Your task to perform on an android device: Open internet settings Image 0: 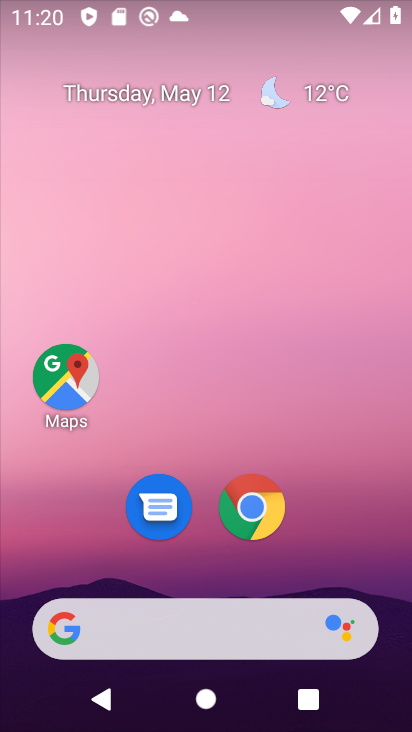
Step 0: drag from (217, 556) to (217, 8)
Your task to perform on an android device: Open internet settings Image 1: 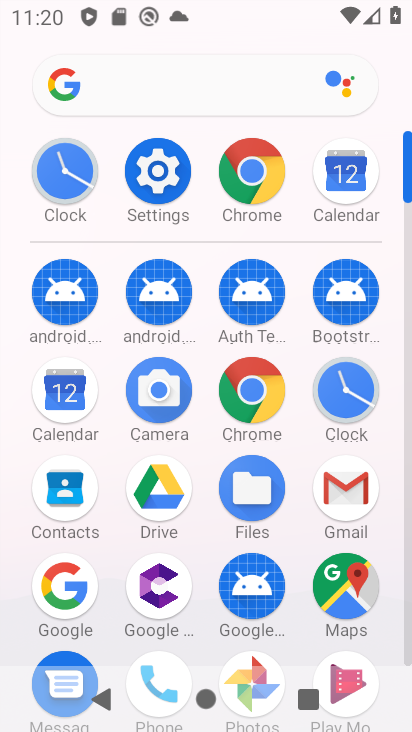
Step 1: click (162, 196)
Your task to perform on an android device: Open internet settings Image 2: 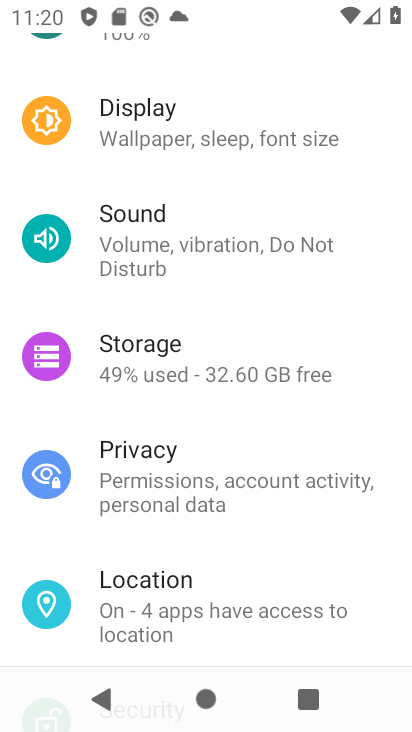
Step 2: drag from (216, 225) to (173, 709)
Your task to perform on an android device: Open internet settings Image 3: 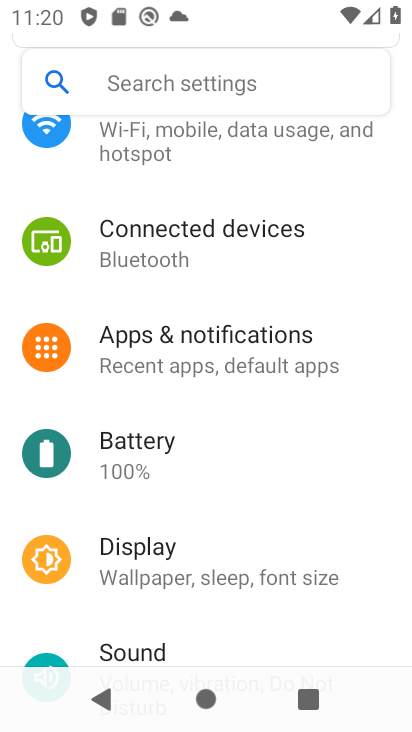
Step 3: drag from (206, 216) to (236, 730)
Your task to perform on an android device: Open internet settings Image 4: 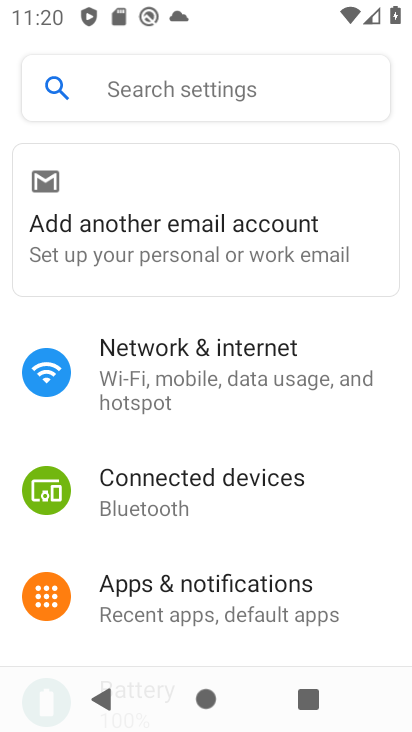
Step 4: click (214, 385)
Your task to perform on an android device: Open internet settings Image 5: 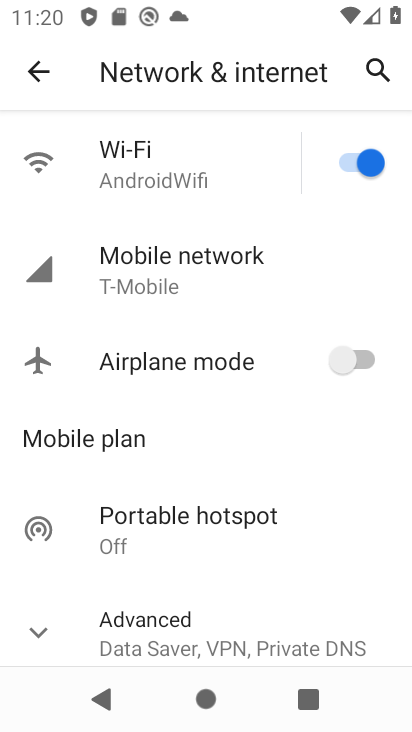
Step 5: task complete